Your task to perform on an android device: change text size in settings app Image 0: 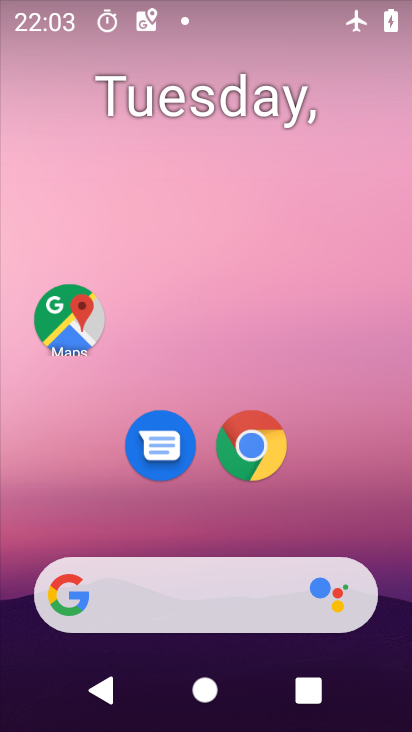
Step 0: drag from (392, 590) to (312, 191)
Your task to perform on an android device: change text size in settings app Image 1: 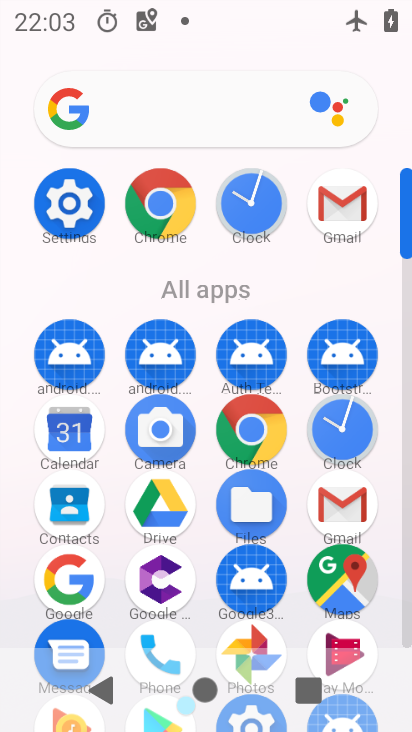
Step 1: click (50, 206)
Your task to perform on an android device: change text size in settings app Image 2: 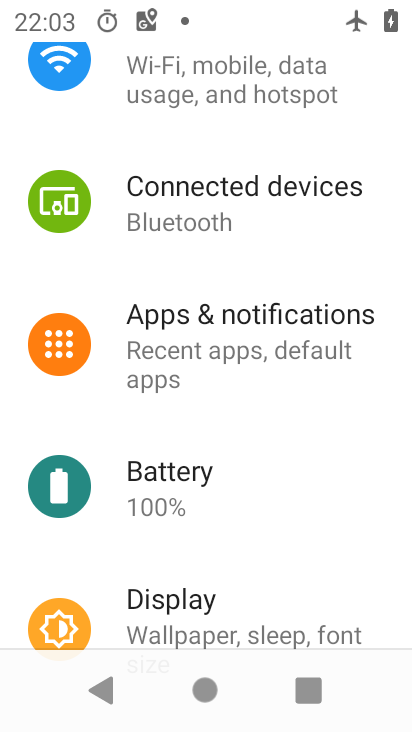
Step 2: click (236, 610)
Your task to perform on an android device: change text size in settings app Image 3: 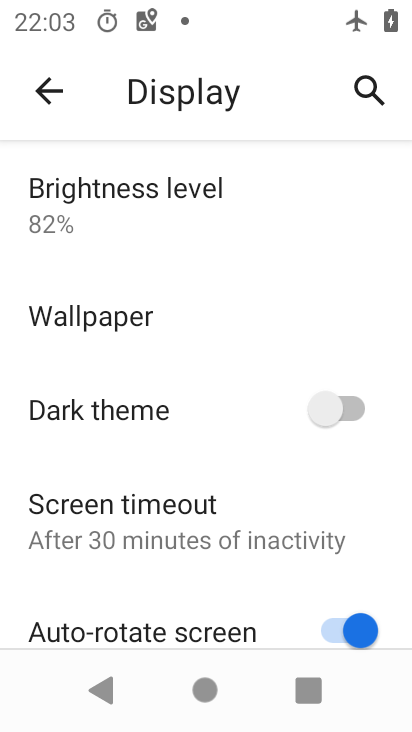
Step 3: drag from (236, 610) to (224, 237)
Your task to perform on an android device: change text size in settings app Image 4: 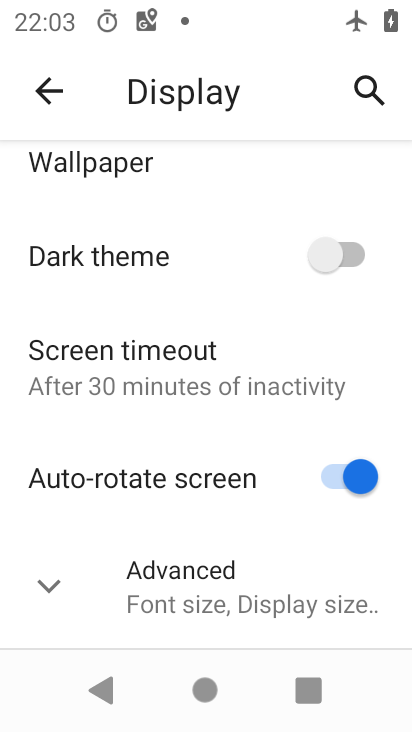
Step 4: click (266, 577)
Your task to perform on an android device: change text size in settings app Image 5: 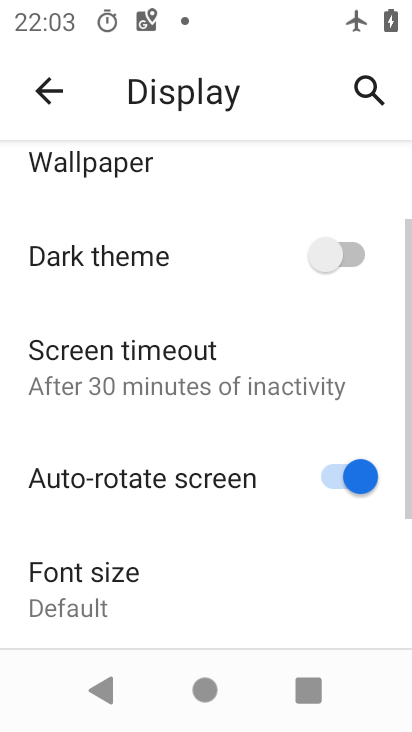
Step 5: click (266, 577)
Your task to perform on an android device: change text size in settings app Image 6: 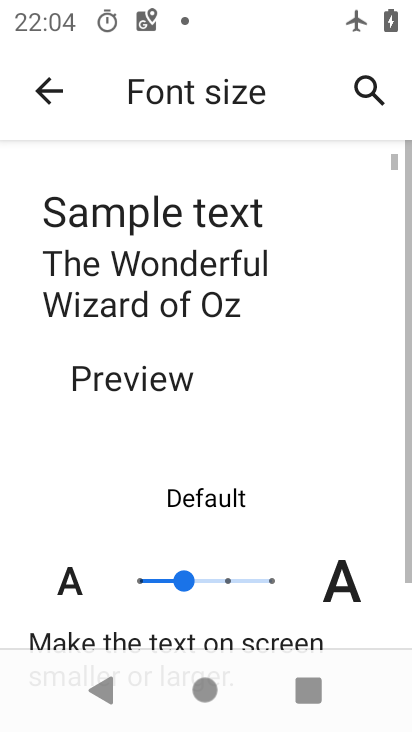
Step 6: drag from (266, 577) to (248, 421)
Your task to perform on an android device: change text size in settings app Image 7: 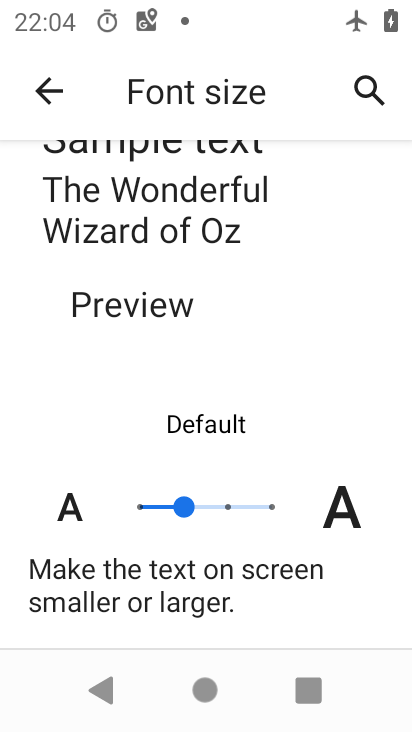
Step 7: click (227, 509)
Your task to perform on an android device: change text size in settings app Image 8: 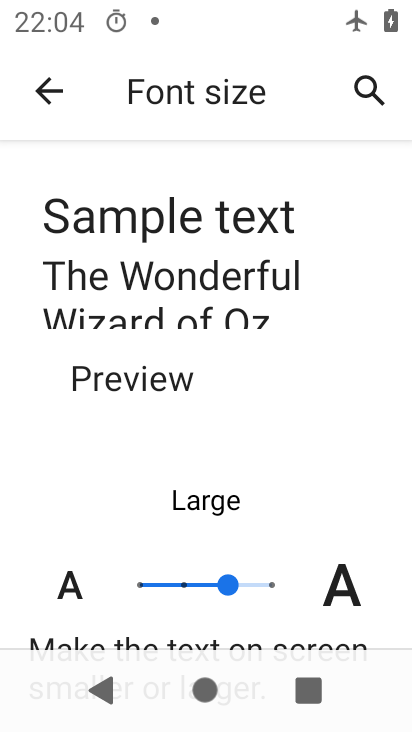
Step 8: task complete